Your task to perform on an android device: Open Youtube and go to the subscriptions tab Image 0: 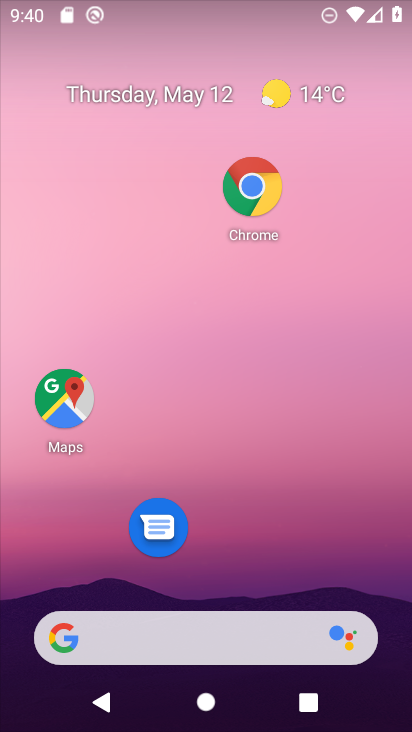
Step 0: drag from (314, 577) to (337, 196)
Your task to perform on an android device: Open Youtube and go to the subscriptions tab Image 1: 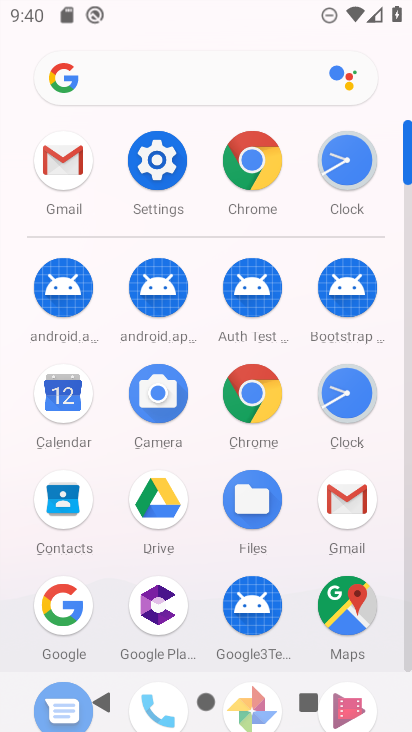
Step 1: click (411, 662)
Your task to perform on an android device: Open Youtube and go to the subscriptions tab Image 2: 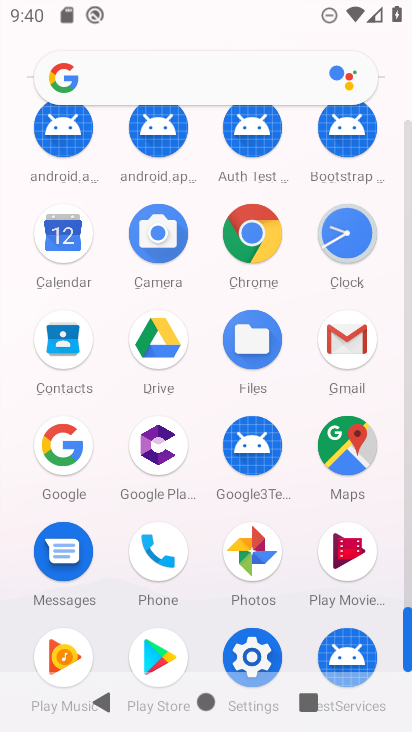
Step 2: drag from (407, 644) to (395, 729)
Your task to perform on an android device: Open Youtube and go to the subscriptions tab Image 3: 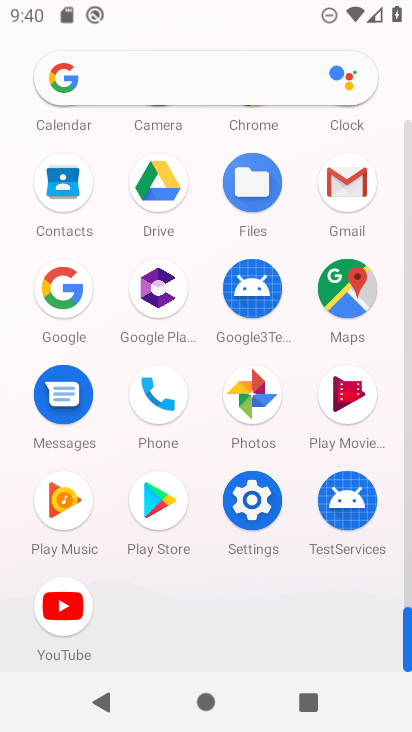
Step 3: click (74, 594)
Your task to perform on an android device: Open Youtube and go to the subscriptions tab Image 4: 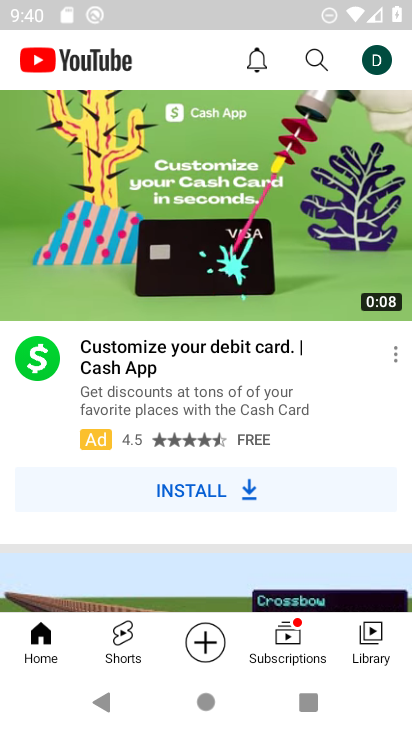
Step 4: click (284, 628)
Your task to perform on an android device: Open Youtube and go to the subscriptions tab Image 5: 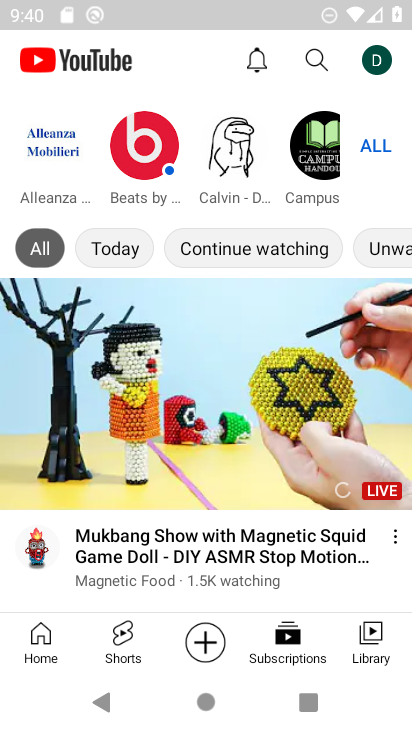
Step 5: task complete